Your task to perform on an android device: change notifications settings Image 0: 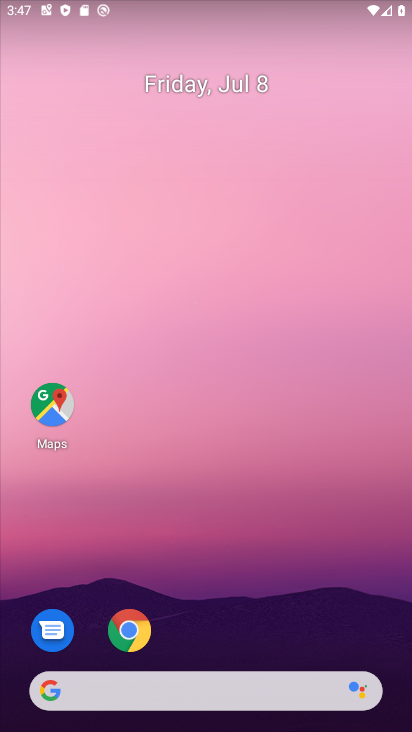
Step 0: drag from (284, 597) to (301, 20)
Your task to perform on an android device: change notifications settings Image 1: 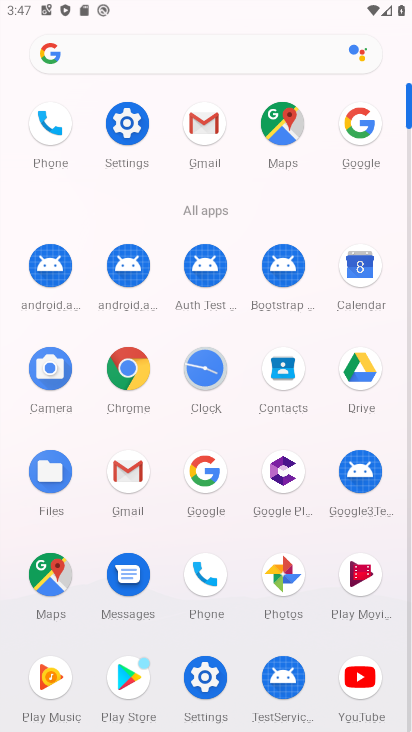
Step 1: click (127, 113)
Your task to perform on an android device: change notifications settings Image 2: 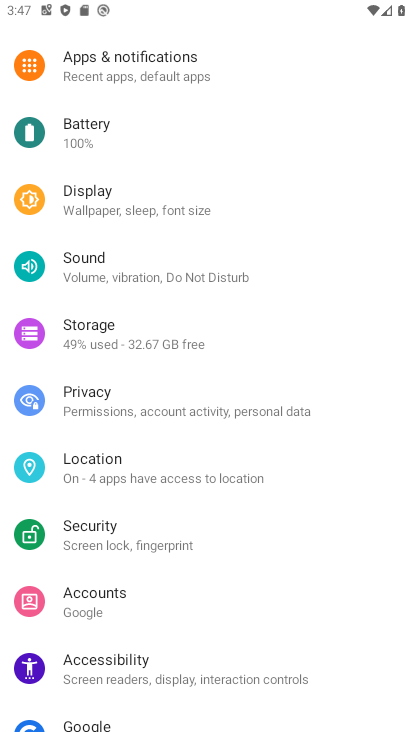
Step 2: click (133, 61)
Your task to perform on an android device: change notifications settings Image 3: 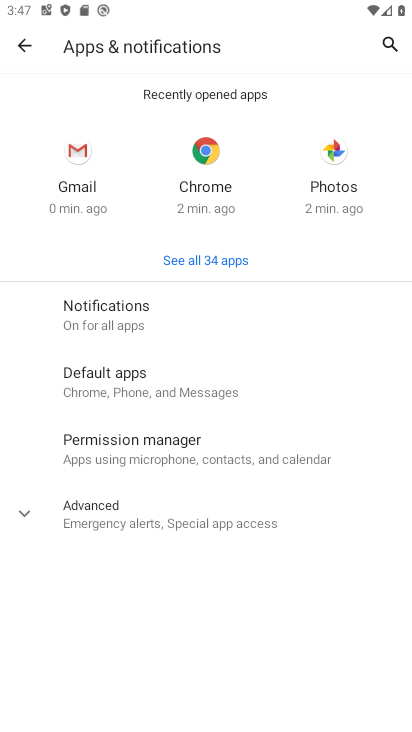
Step 3: click (87, 308)
Your task to perform on an android device: change notifications settings Image 4: 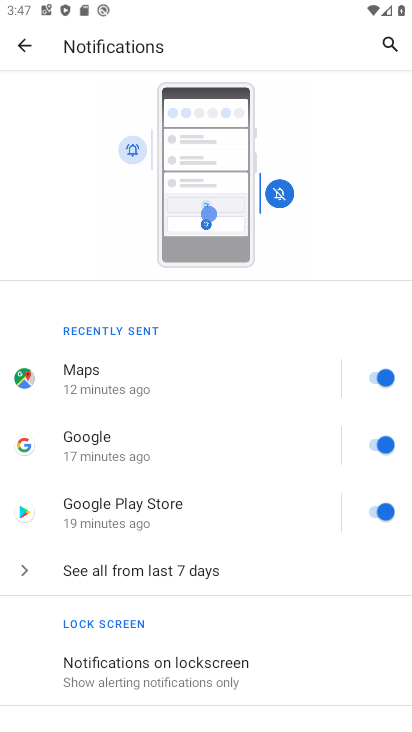
Step 4: click (180, 572)
Your task to perform on an android device: change notifications settings Image 5: 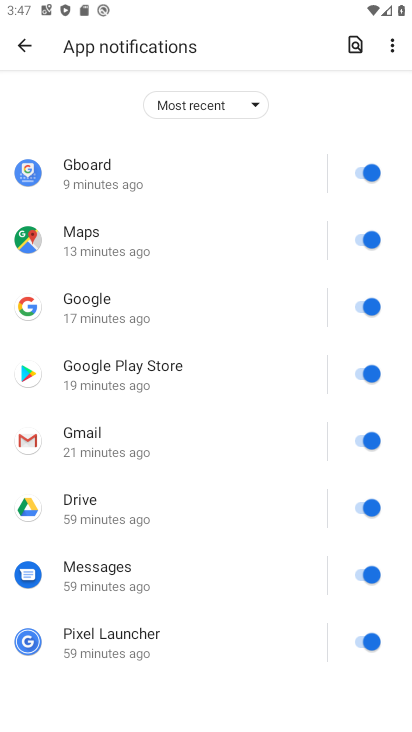
Step 5: click (367, 181)
Your task to perform on an android device: change notifications settings Image 6: 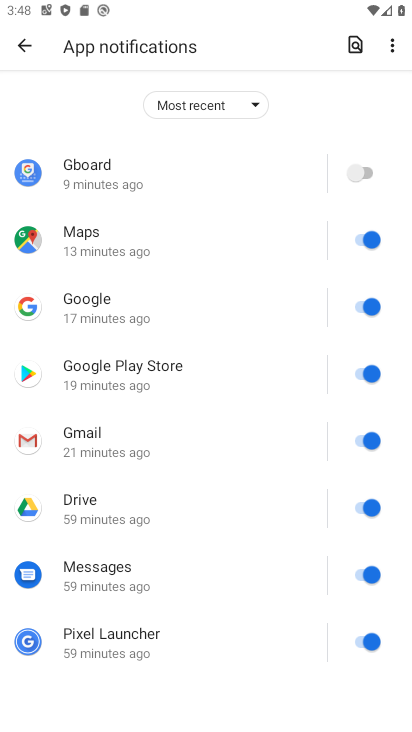
Step 6: click (367, 233)
Your task to perform on an android device: change notifications settings Image 7: 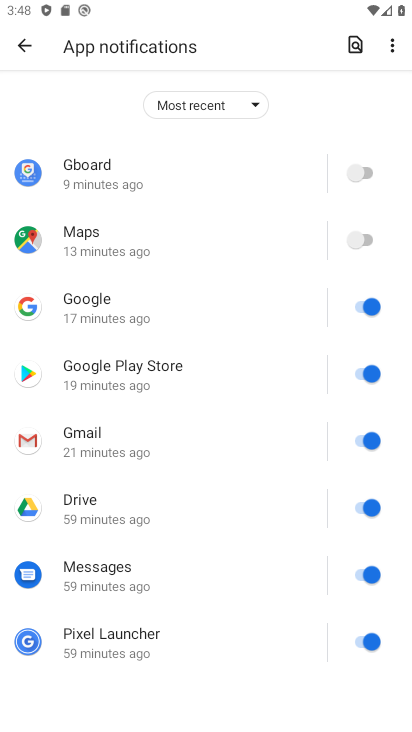
Step 7: click (367, 309)
Your task to perform on an android device: change notifications settings Image 8: 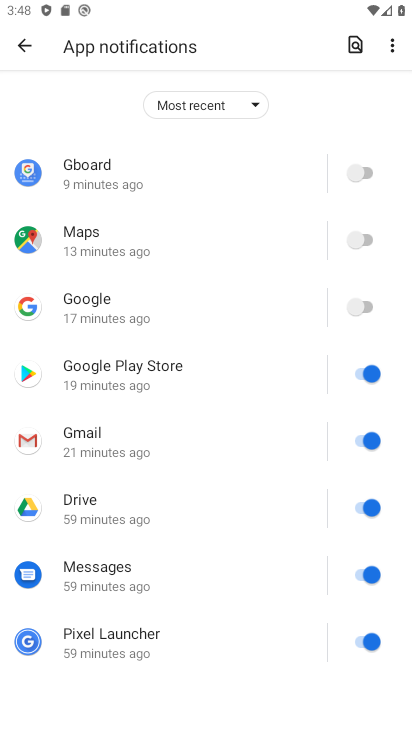
Step 8: click (370, 369)
Your task to perform on an android device: change notifications settings Image 9: 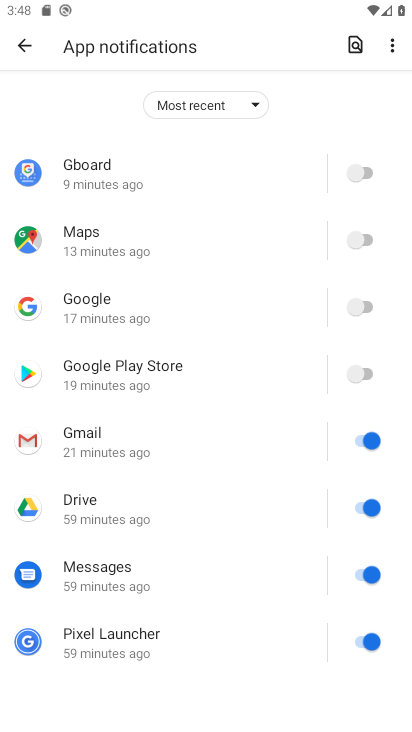
Step 9: click (370, 435)
Your task to perform on an android device: change notifications settings Image 10: 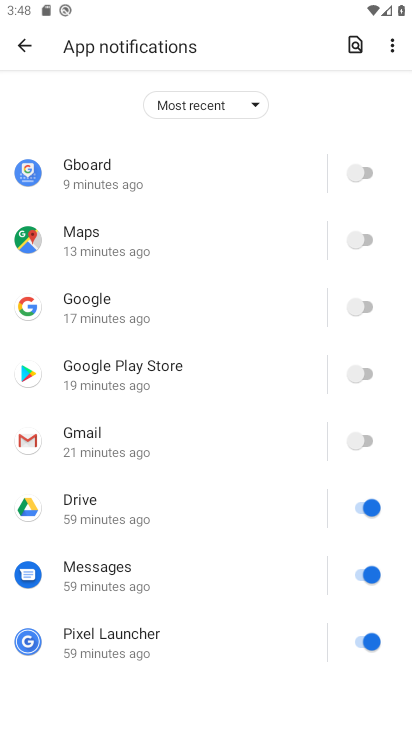
Step 10: click (368, 524)
Your task to perform on an android device: change notifications settings Image 11: 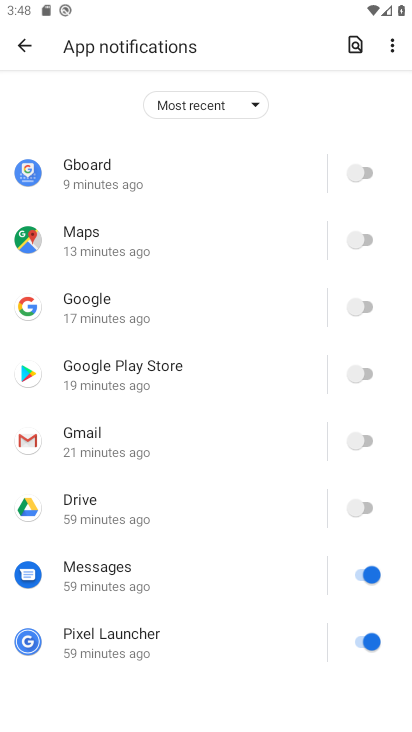
Step 11: click (368, 576)
Your task to perform on an android device: change notifications settings Image 12: 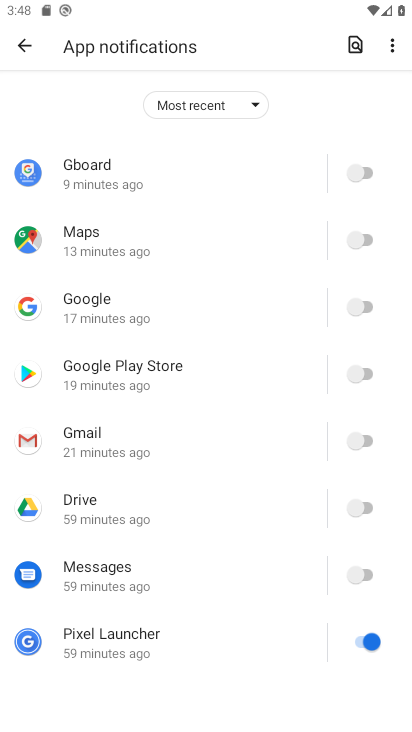
Step 12: click (368, 644)
Your task to perform on an android device: change notifications settings Image 13: 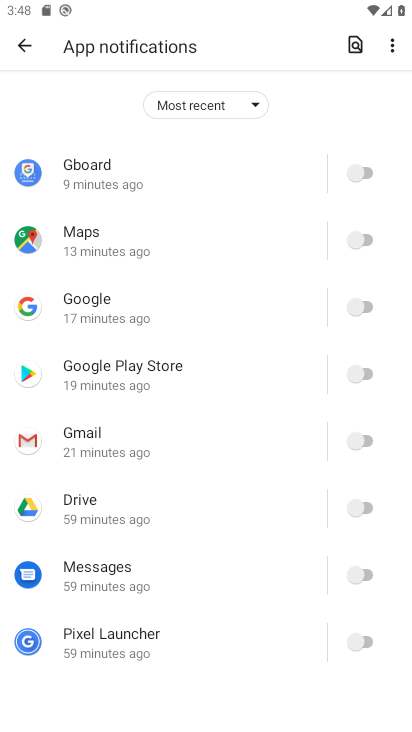
Step 13: click (23, 48)
Your task to perform on an android device: change notifications settings Image 14: 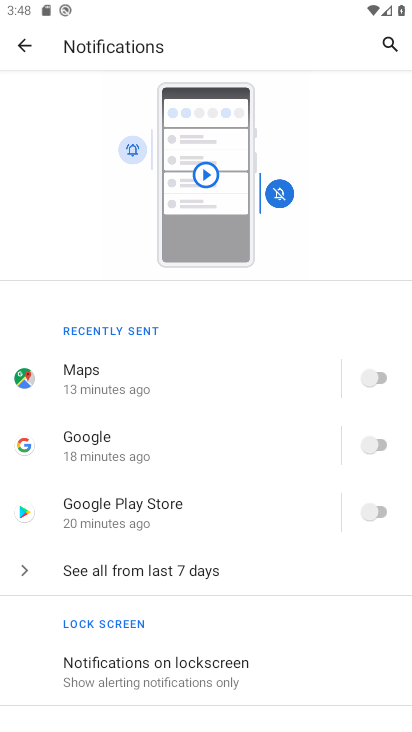
Step 14: click (160, 672)
Your task to perform on an android device: change notifications settings Image 15: 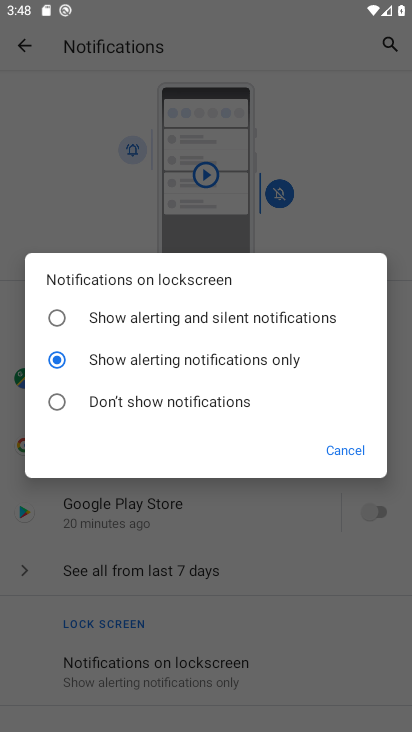
Step 15: click (164, 314)
Your task to perform on an android device: change notifications settings Image 16: 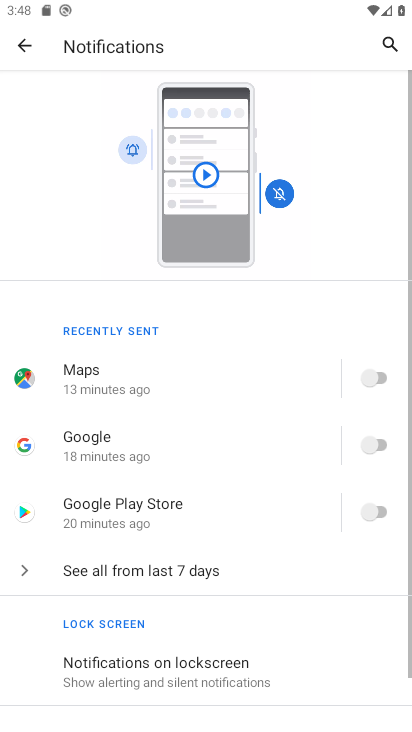
Step 16: drag from (193, 575) to (137, 54)
Your task to perform on an android device: change notifications settings Image 17: 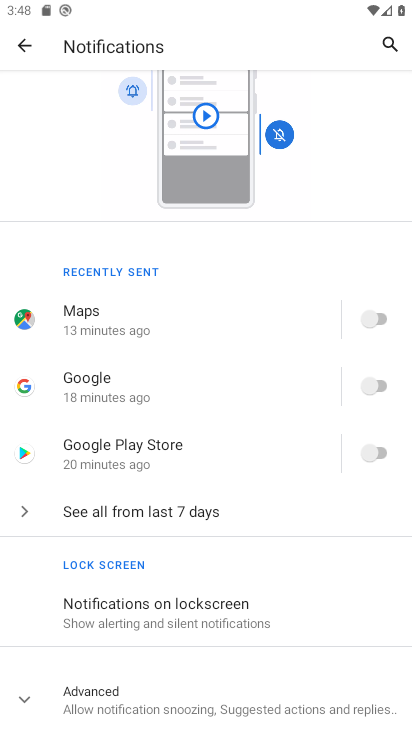
Step 17: click (172, 703)
Your task to perform on an android device: change notifications settings Image 18: 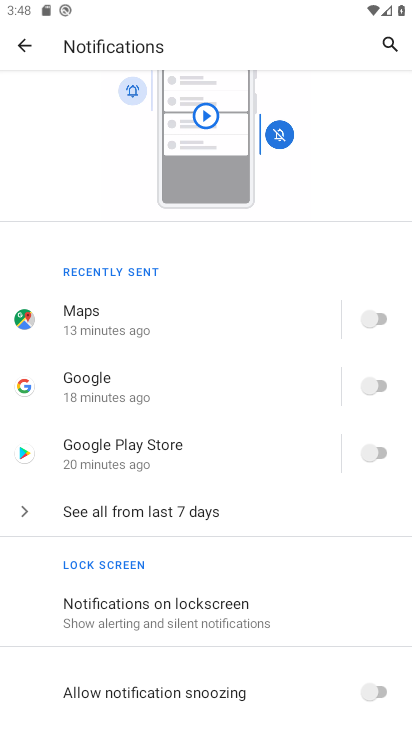
Step 18: drag from (207, 680) to (215, 179)
Your task to perform on an android device: change notifications settings Image 19: 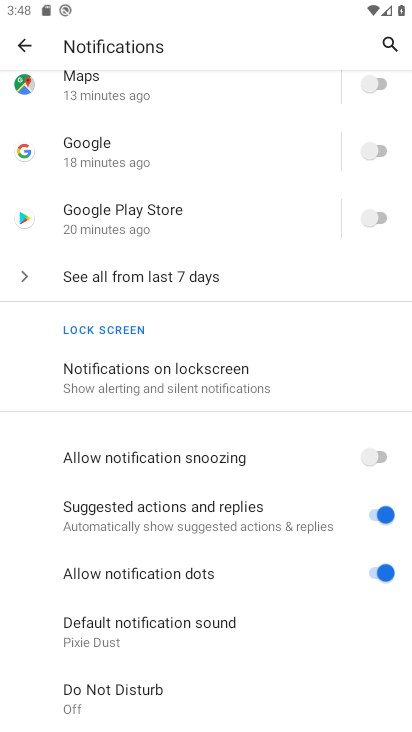
Step 19: click (365, 453)
Your task to perform on an android device: change notifications settings Image 20: 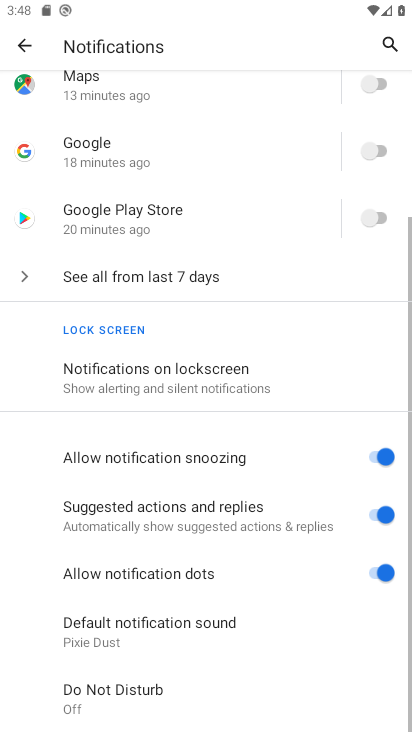
Step 20: click (383, 505)
Your task to perform on an android device: change notifications settings Image 21: 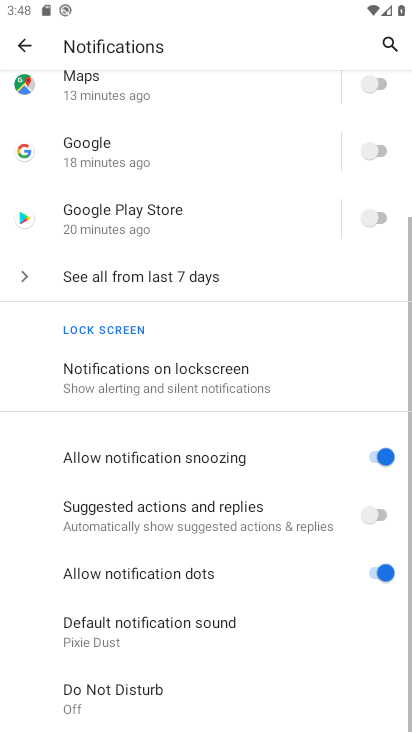
Step 21: click (379, 569)
Your task to perform on an android device: change notifications settings Image 22: 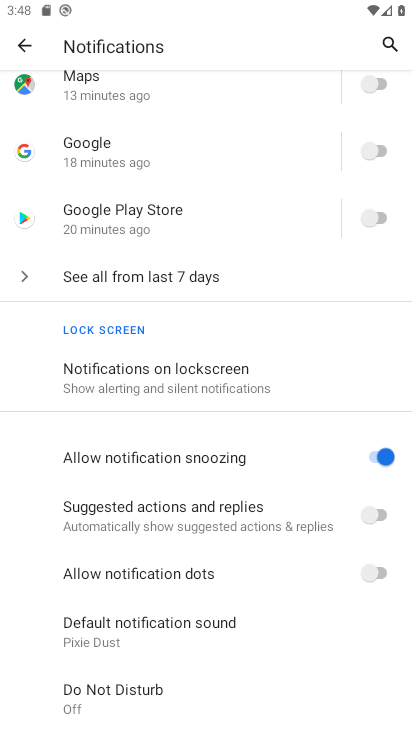
Step 22: task complete